Your task to perform on an android device: Open settings on Google Maps Image 0: 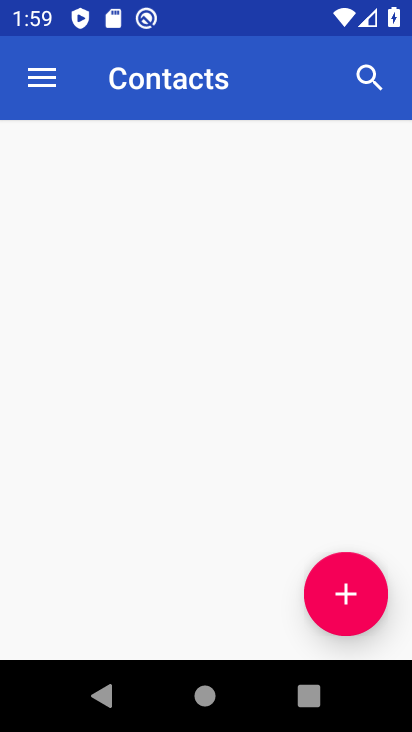
Step 0: drag from (251, 6) to (354, 649)
Your task to perform on an android device: Open settings on Google Maps Image 1: 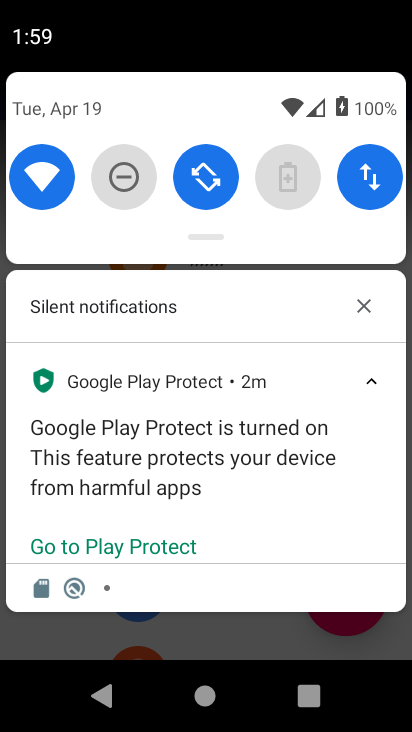
Step 1: press home button
Your task to perform on an android device: Open settings on Google Maps Image 2: 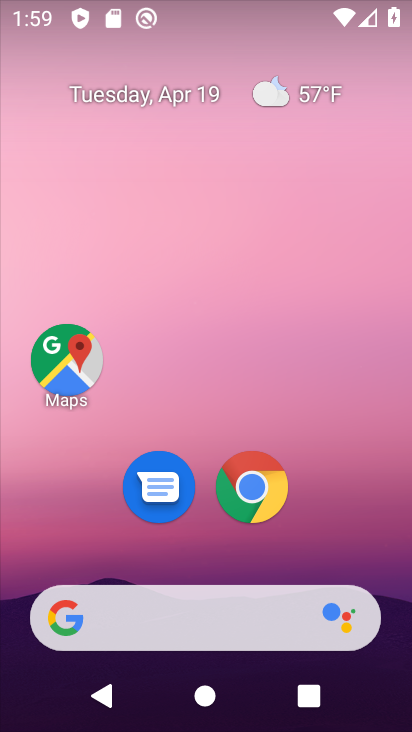
Step 2: click (60, 327)
Your task to perform on an android device: Open settings on Google Maps Image 3: 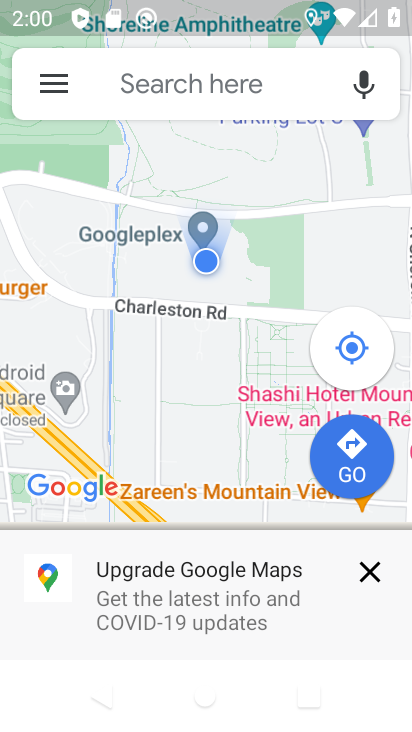
Step 3: click (70, 78)
Your task to perform on an android device: Open settings on Google Maps Image 4: 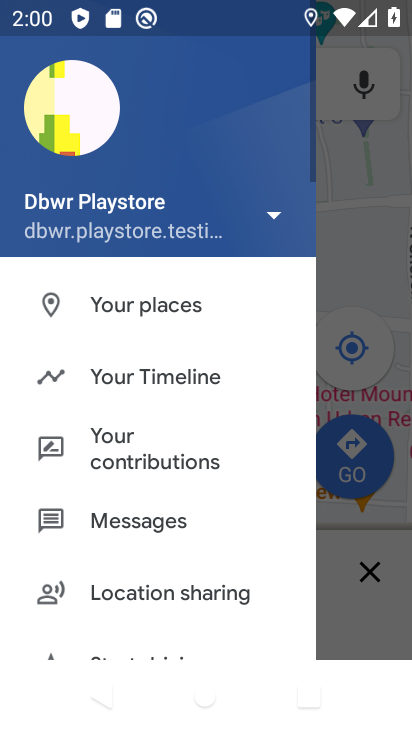
Step 4: drag from (141, 632) to (213, 28)
Your task to perform on an android device: Open settings on Google Maps Image 5: 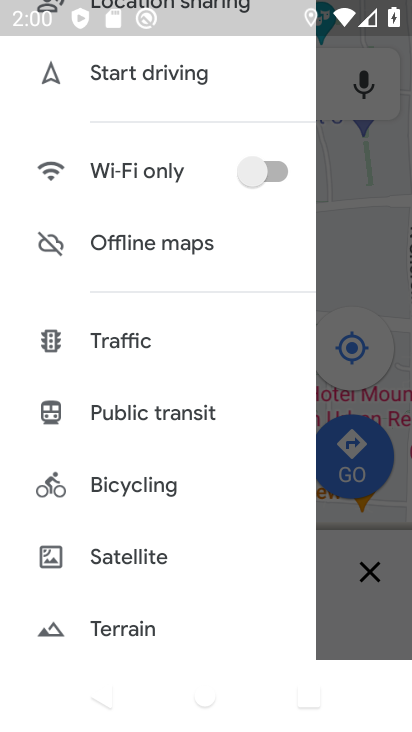
Step 5: drag from (101, 565) to (115, 101)
Your task to perform on an android device: Open settings on Google Maps Image 6: 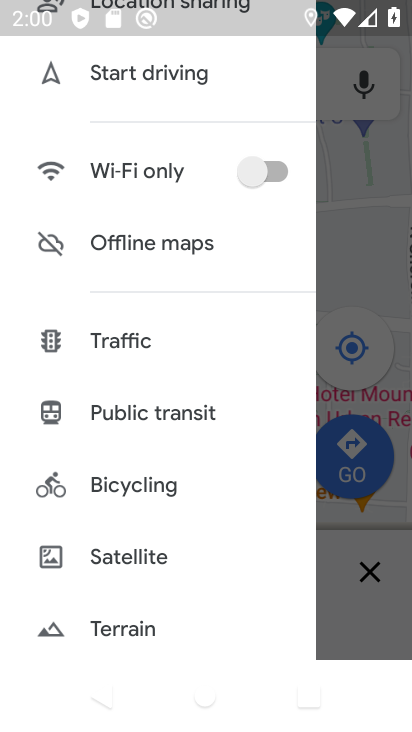
Step 6: drag from (199, 590) to (166, 0)
Your task to perform on an android device: Open settings on Google Maps Image 7: 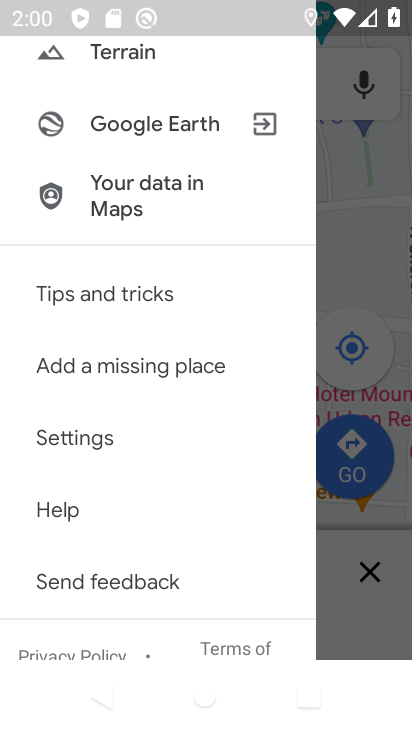
Step 7: click (78, 450)
Your task to perform on an android device: Open settings on Google Maps Image 8: 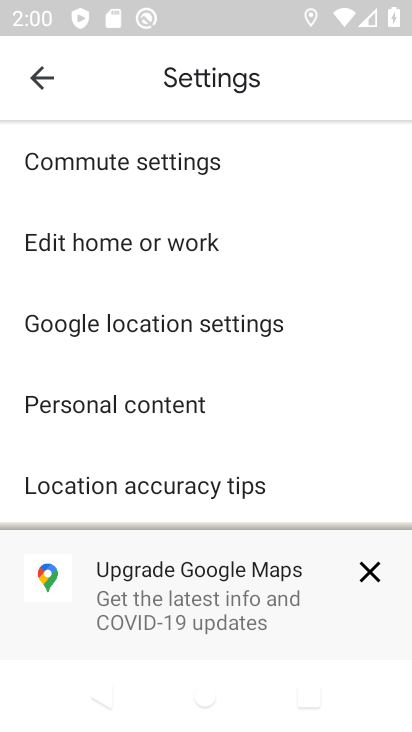
Step 8: task complete